Your task to perform on an android device: empty trash in the gmail app Image 0: 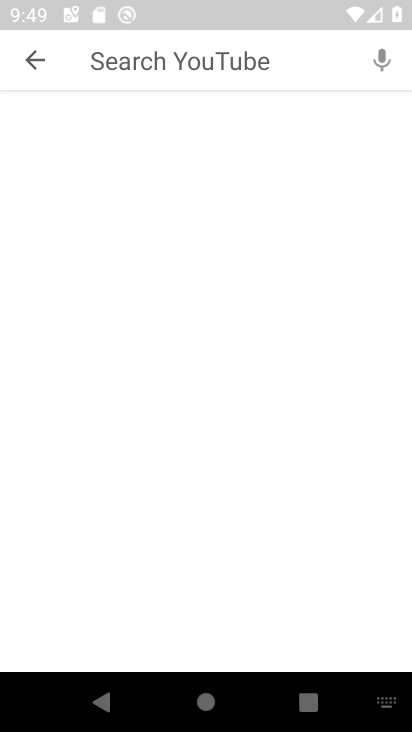
Step 0: press home button
Your task to perform on an android device: empty trash in the gmail app Image 1: 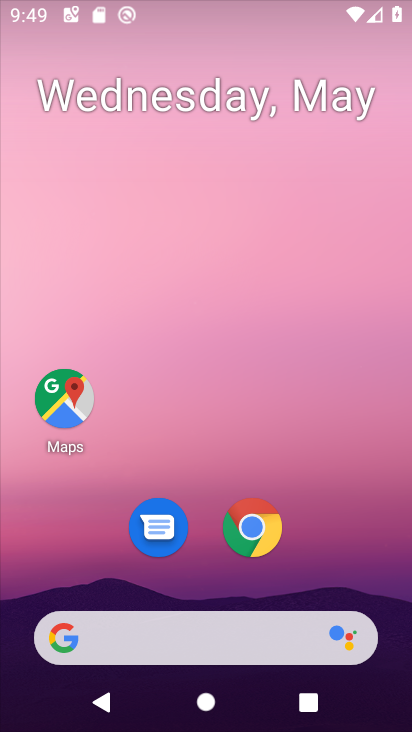
Step 1: drag from (253, 455) to (230, 217)
Your task to perform on an android device: empty trash in the gmail app Image 2: 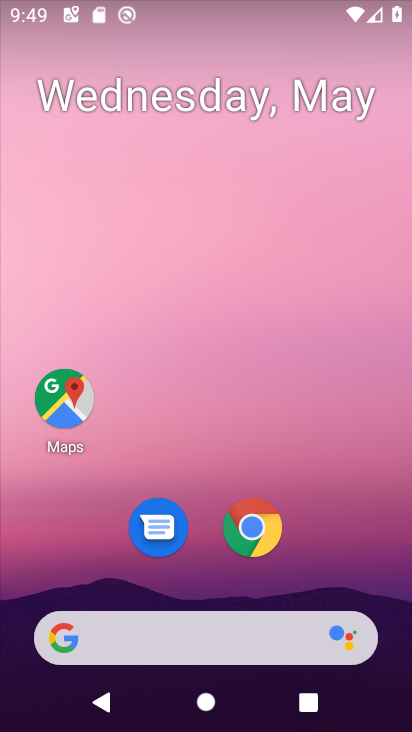
Step 2: drag from (218, 582) to (232, 42)
Your task to perform on an android device: empty trash in the gmail app Image 3: 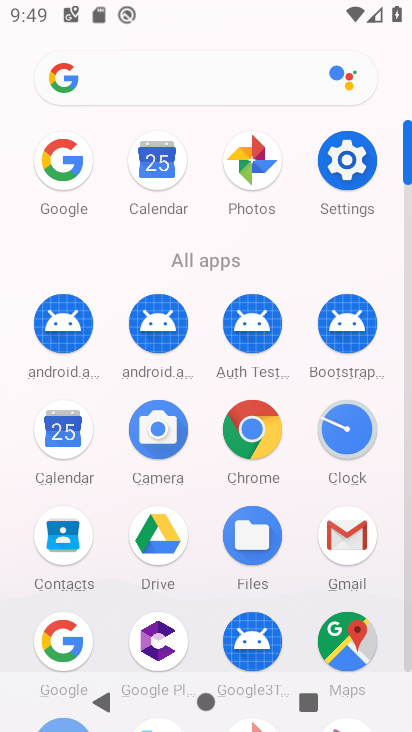
Step 3: click (351, 519)
Your task to perform on an android device: empty trash in the gmail app Image 4: 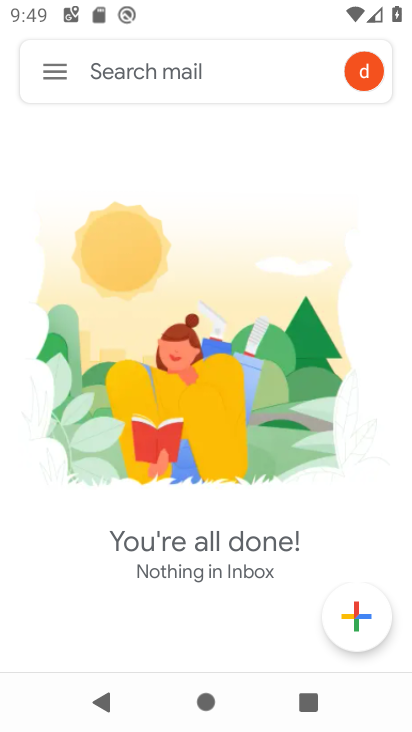
Step 4: click (47, 71)
Your task to perform on an android device: empty trash in the gmail app Image 5: 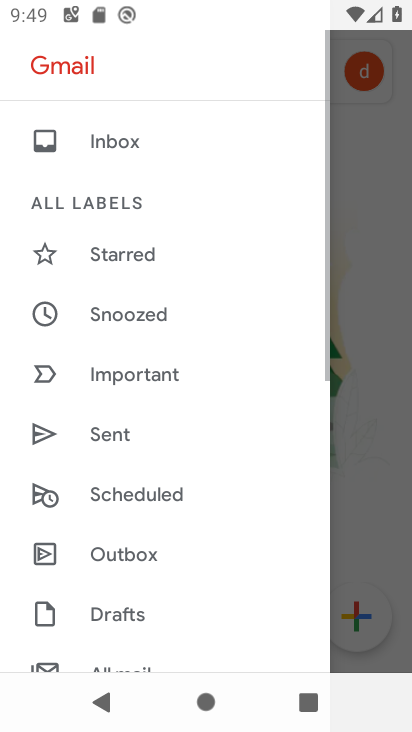
Step 5: drag from (131, 555) to (162, 72)
Your task to perform on an android device: empty trash in the gmail app Image 6: 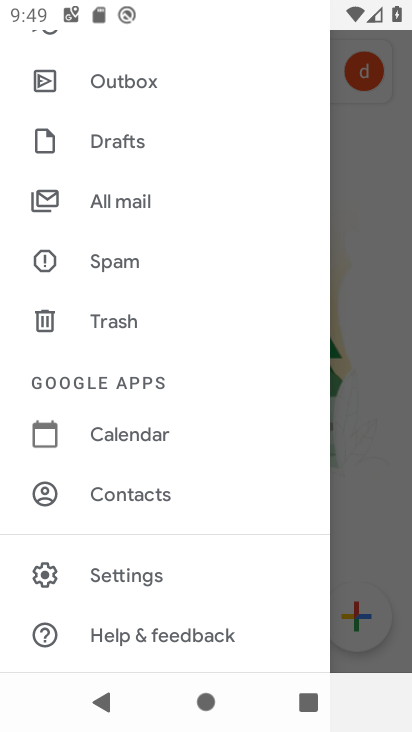
Step 6: drag from (123, 271) to (120, 114)
Your task to perform on an android device: empty trash in the gmail app Image 7: 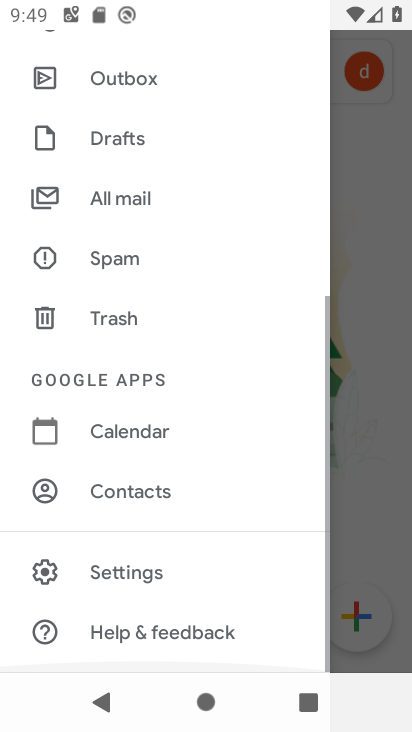
Step 7: click (129, 326)
Your task to perform on an android device: empty trash in the gmail app Image 8: 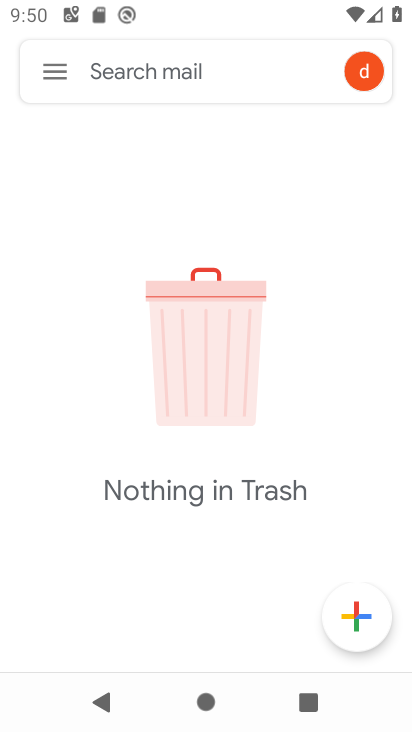
Step 8: task complete